Your task to perform on an android device: Open ESPN.com Image 0: 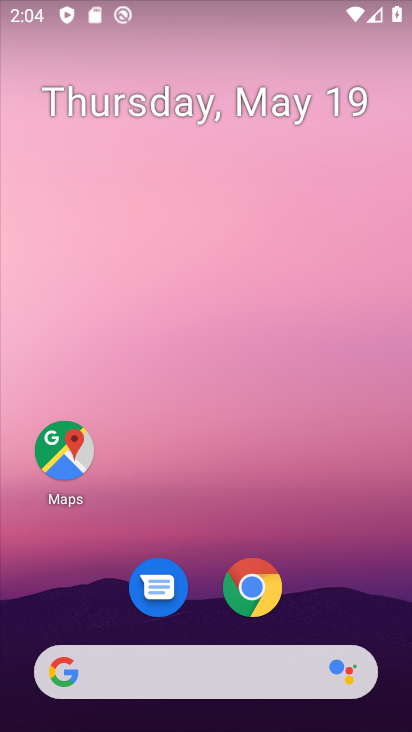
Step 0: click (248, 586)
Your task to perform on an android device: Open ESPN.com Image 1: 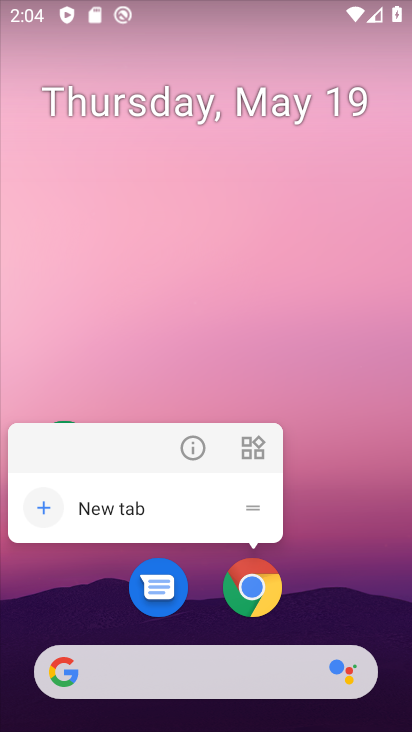
Step 1: click (241, 607)
Your task to perform on an android device: Open ESPN.com Image 2: 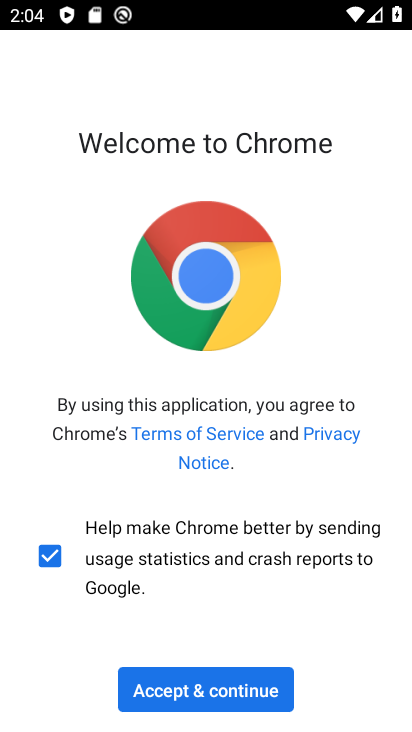
Step 2: click (217, 696)
Your task to perform on an android device: Open ESPN.com Image 3: 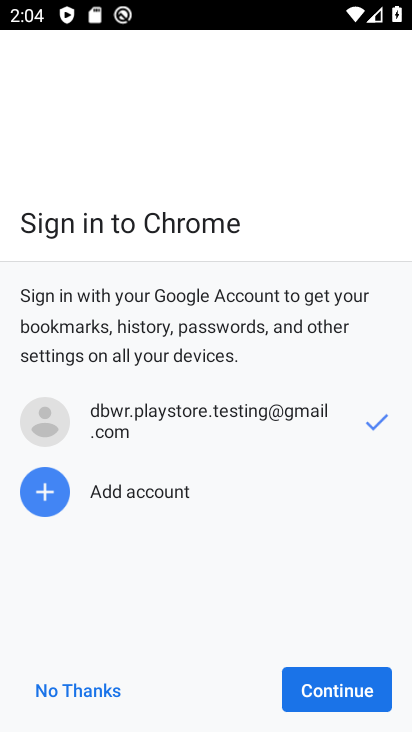
Step 3: click (330, 685)
Your task to perform on an android device: Open ESPN.com Image 4: 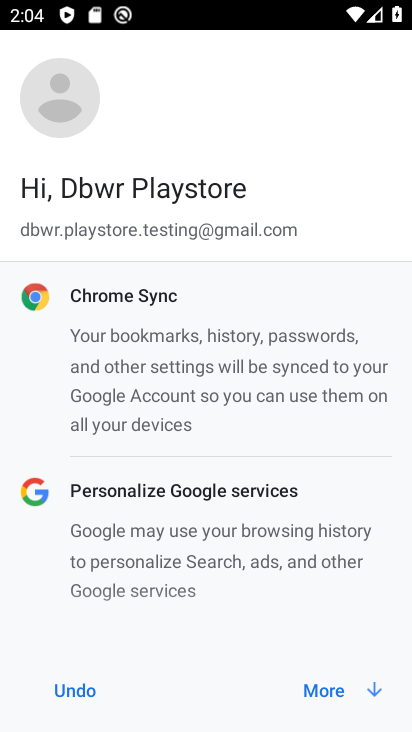
Step 4: click (313, 688)
Your task to perform on an android device: Open ESPN.com Image 5: 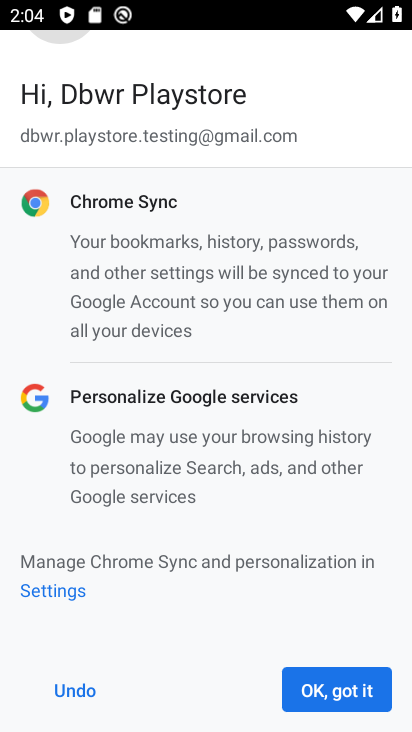
Step 5: click (313, 688)
Your task to perform on an android device: Open ESPN.com Image 6: 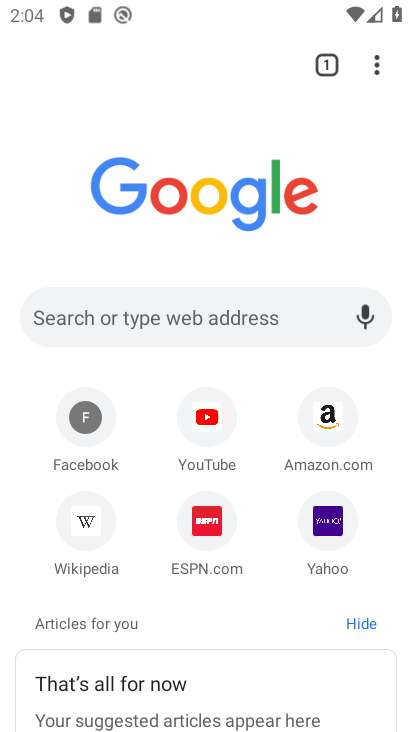
Step 6: click (250, 318)
Your task to perform on an android device: Open ESPN.com Image 7: 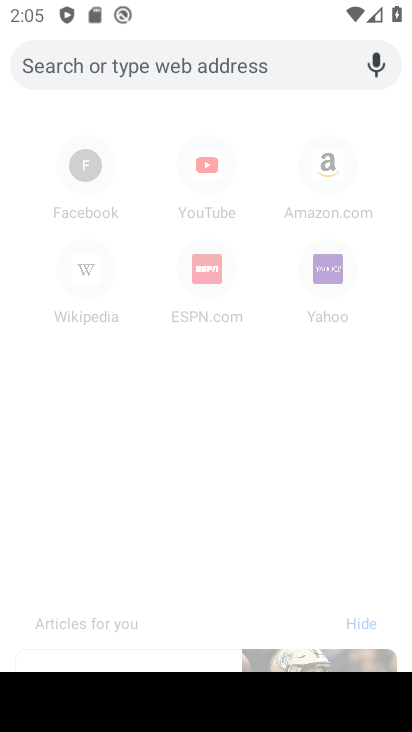
Step 7: type "ESPN.com"
Your task to perform on an android device: Open ESPN.com Image 8: 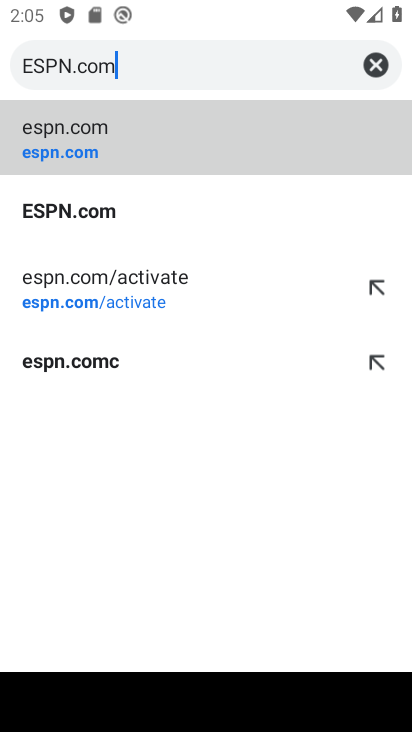
Step 8: click (72, 205)
Your task to perform on an android device: Open ESPN.com Image 9: 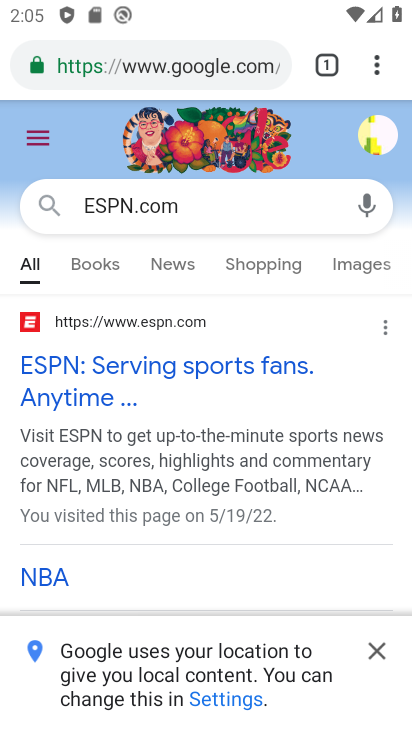
Step 9: click (72, 370)
Your task to perform on an android device: Open ESPN.com Image 10: 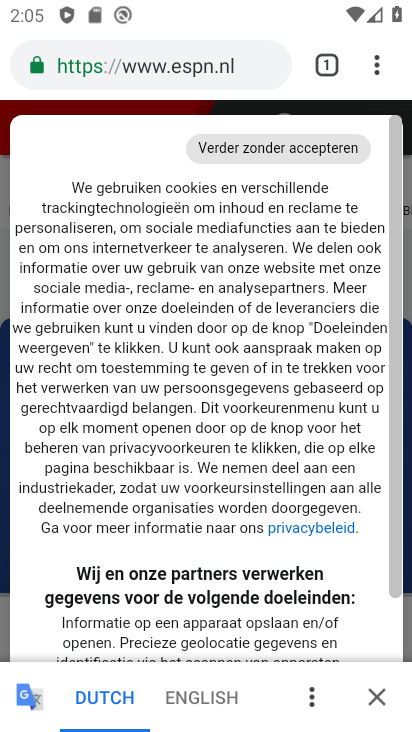
Step 10: click (299, 144)
Your task to perform on an android device: Open ESPN.com Image 11: 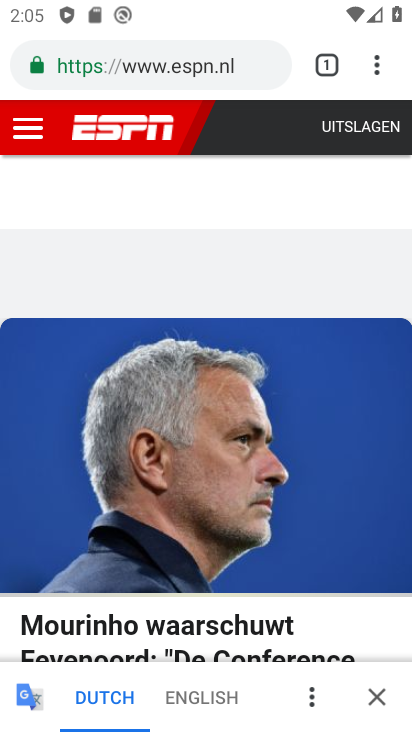
Step 11: task complete